Your task to perform on an android device: open chrome privacy settings Image 0: 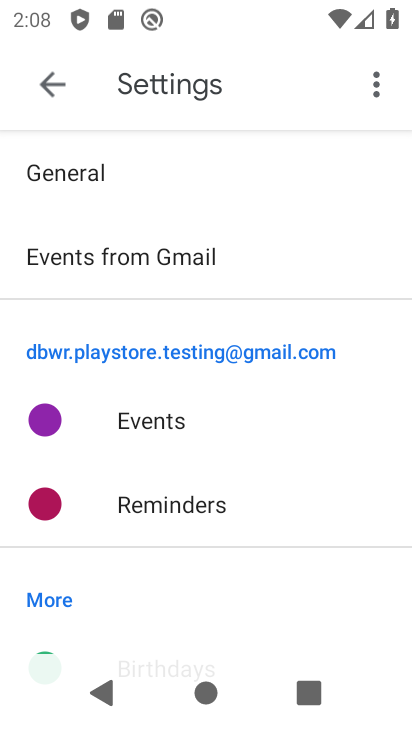
Step 0: press home button
Your task to perform on an android device: open chrome privacy settings Image 1: 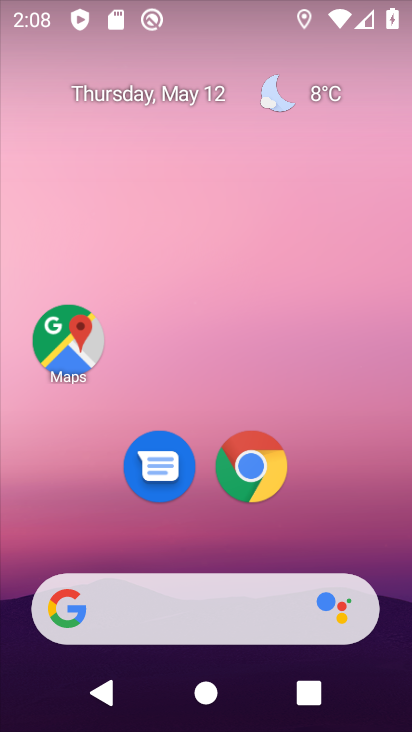
Step 1: click (260, 462)
Your task to perform on an android device: open chrome privacy settings Image 2: 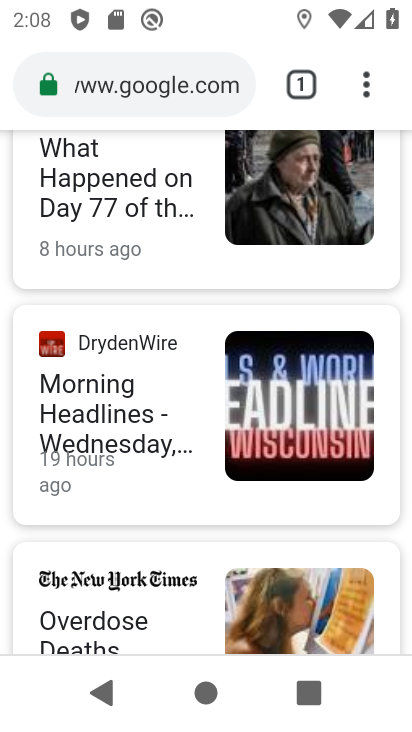
Step 2: click (367, 83)
Your task to perform on an android device: open chrome privacy settings Image 3: 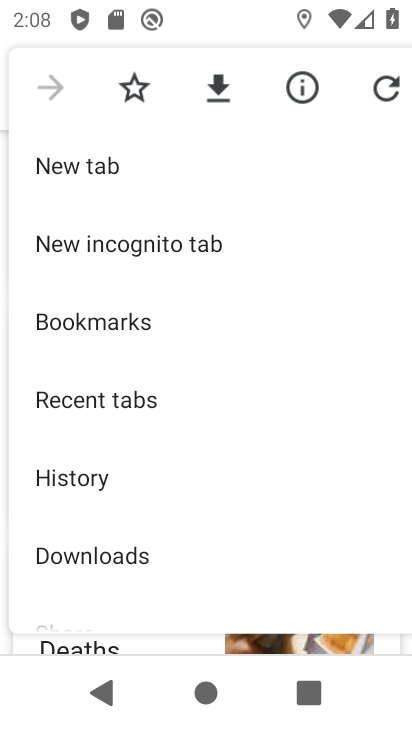
Step 3: drag from (156, 569) to (165, 190)
Your task to perform on an android device: open chrome privacy settings Image 4: 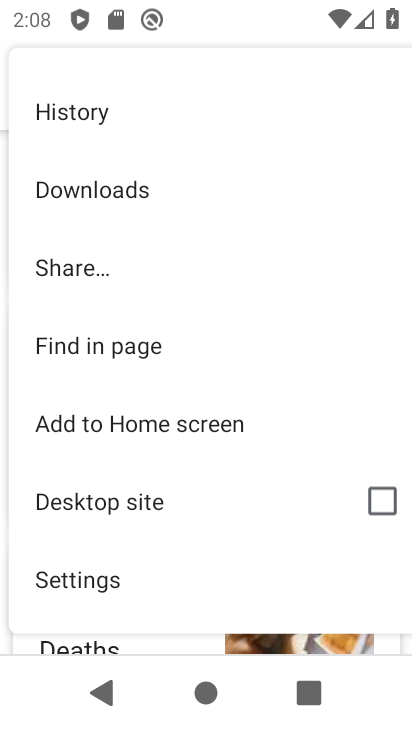
Step 4: click (90, 577)
Your task to perform on an android device: open chrome privacy settings Image 5: 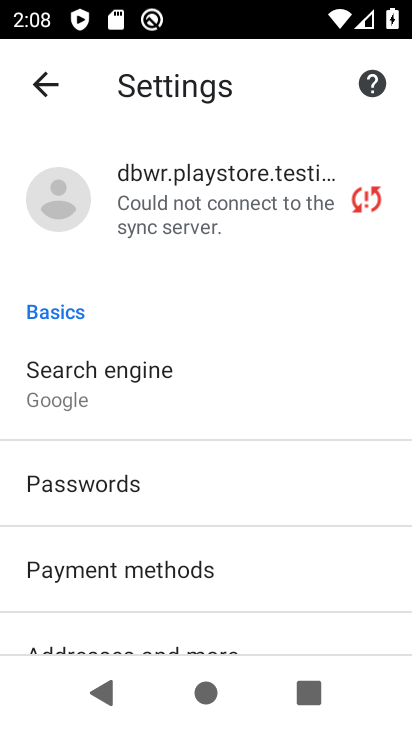
Step 5: drag from (285, 609) to (234, 178)
Your task to perform on an android device: open chrome privacy settings Image 6: 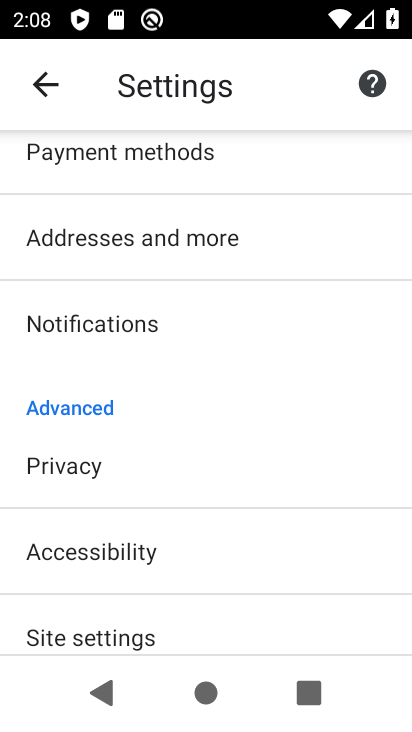
Step 6: click (90, 471)
Your task to perform on an android device: open chrome privacy settings Image 7: 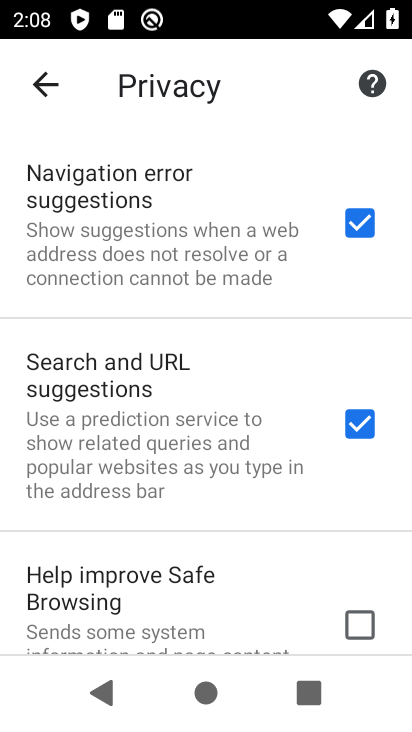
Step 7: task complete